Your task to perform on an android device: Open settings on Google Maps Image 0: 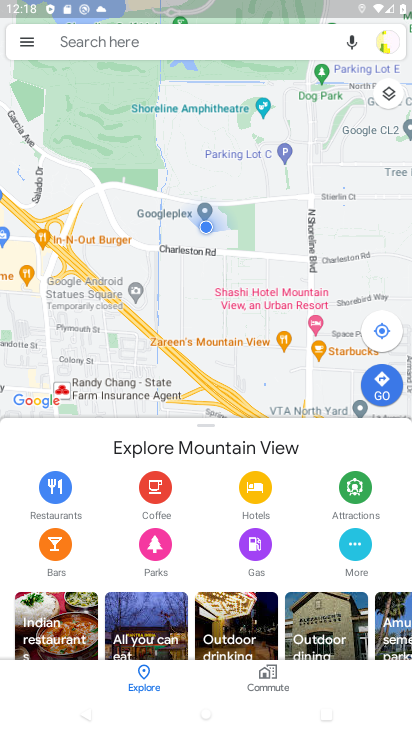
Step 0: press home button
Your task to perform on an android device: Open settings on Google Maps Image 1: 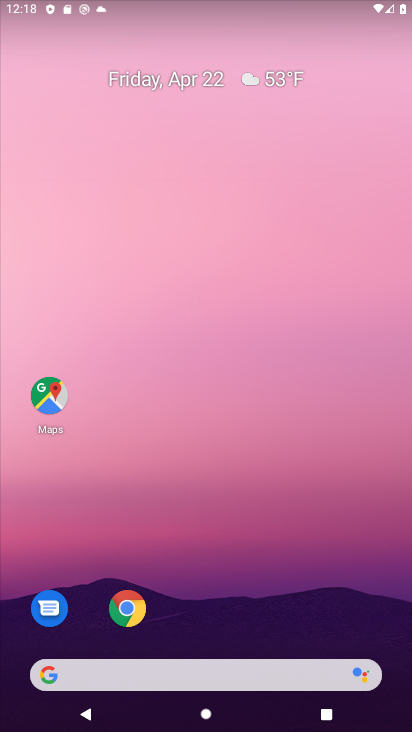
Step 1: drag from (255, 588) to (226, 70)
Your task to perform on an android device: Open settings on Google Maps Image 2: 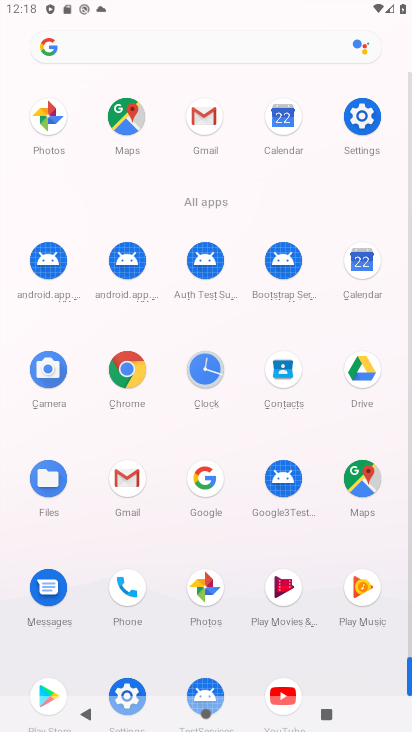
Step 2: click (369, 496)
Your task to perform on an android device: Open settings on Google Maps Image 3: 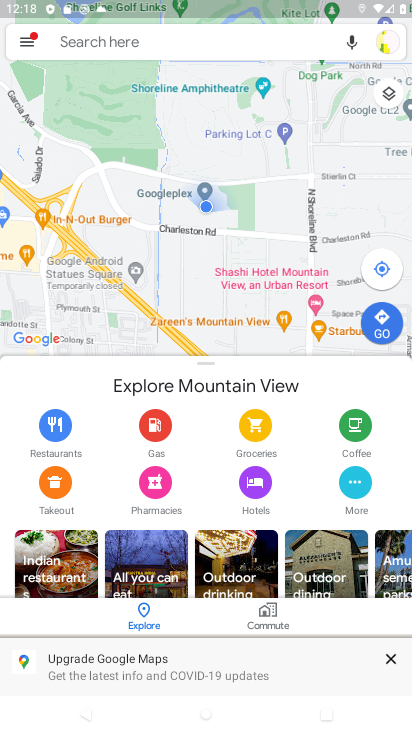
Step 3: click (22, 39)
Your task to perform on an android device: Open settings on Google Maps Image 4: 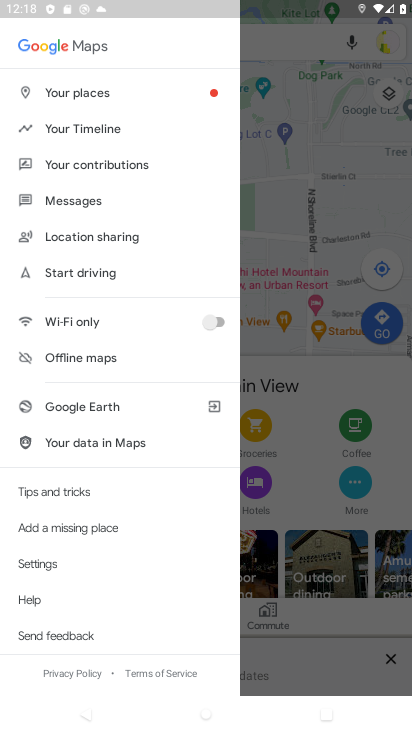
Step 4: click (44, 560)
Your task to perform on an android device: Open settings on Google Maps Image 5: 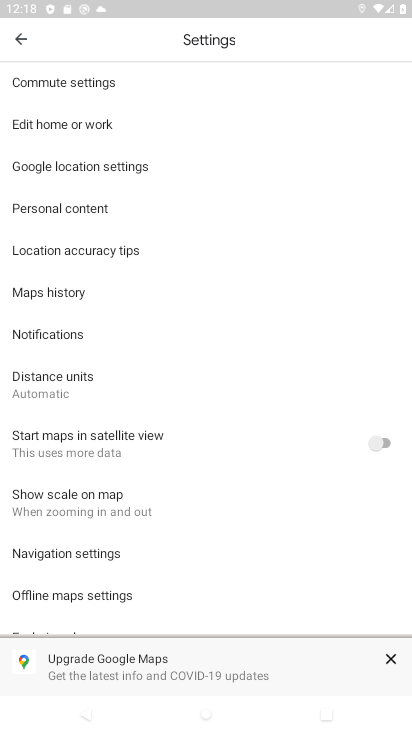
Step 5: task complete